Your task to perform on an android device: turn notification dots off Image 0: 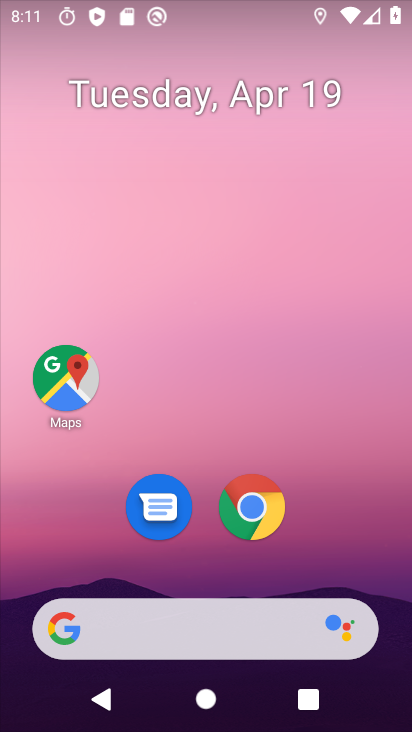
Step 0: drag from (391, 497) to (226, 133)
Your task to perform on an android device: turn notification dots off Image 1: 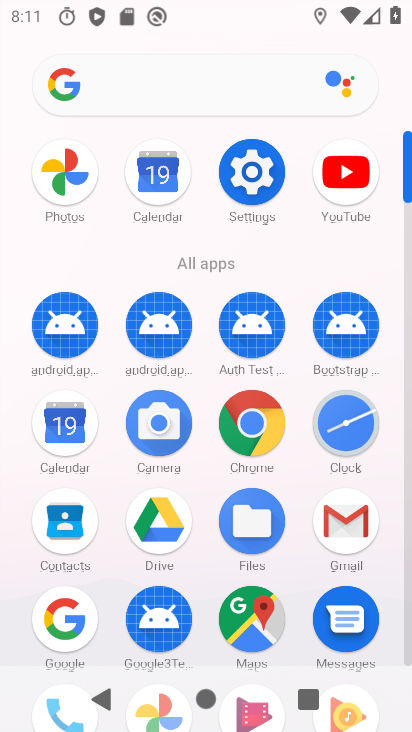
Step 1: click (256, 182)
Your task to perform on an android device: turn notification dots off Image 2: 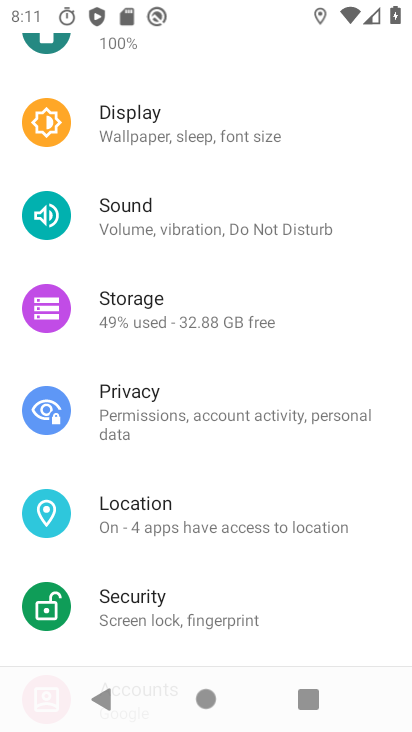
Step 2: drag from (221, 172) to (207, 507)
Your task to perform on an android device: turn notification dots off Image 3: 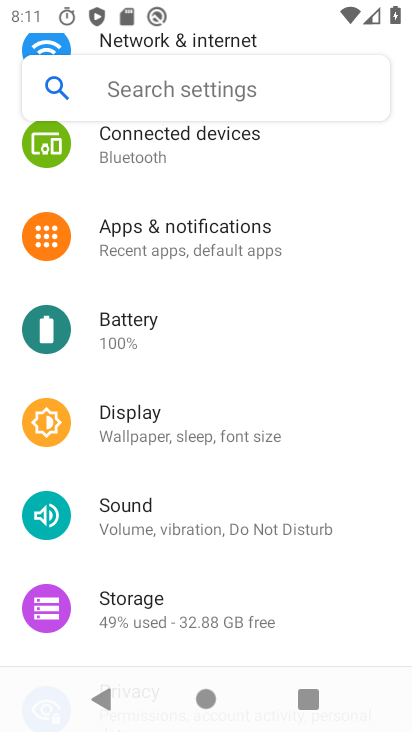
Step 3: click (202, 247)
Your task to perform on an android device: turn notification dots off Image 4: 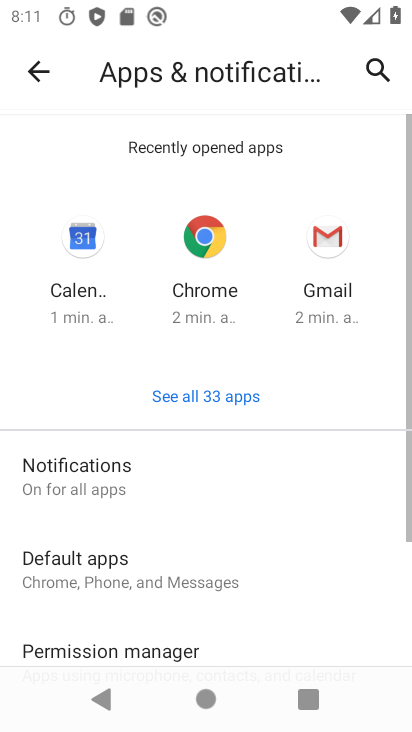
Step 4: drag from (113, 590) to (142, 224)
Your task to perform on an android device: turn notification dots off Image 5: 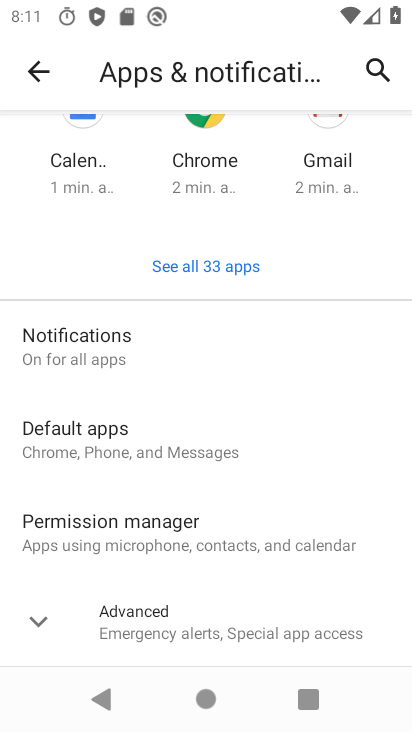
Step 5: click (86, 357)
Your task to perform on an android device: turn notification dots off Image 6: 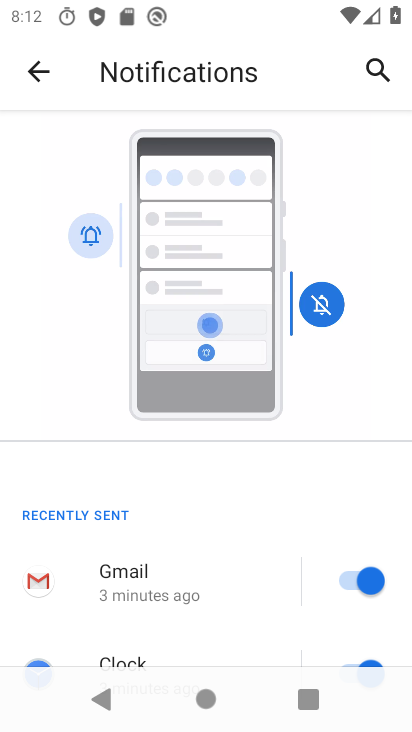
Step 6: drag from (142, 617) to (176, 241)
Your task to perform on an android device: turn notification dots off Image 7: 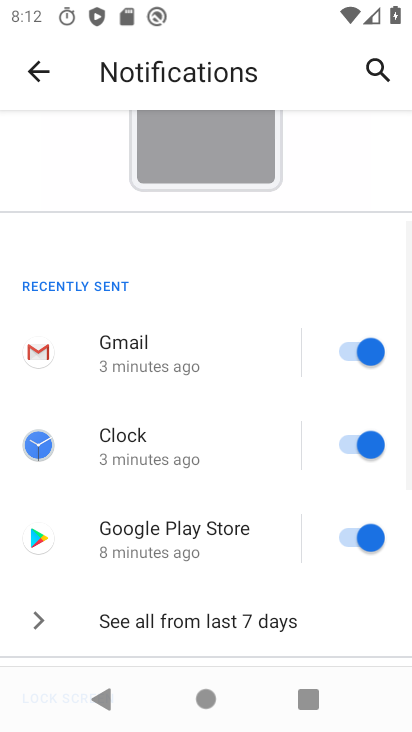
Step 7: drag from (163, 610) to (161, 170)
Your task to perform on an android device: turn notification dots off Image 8: 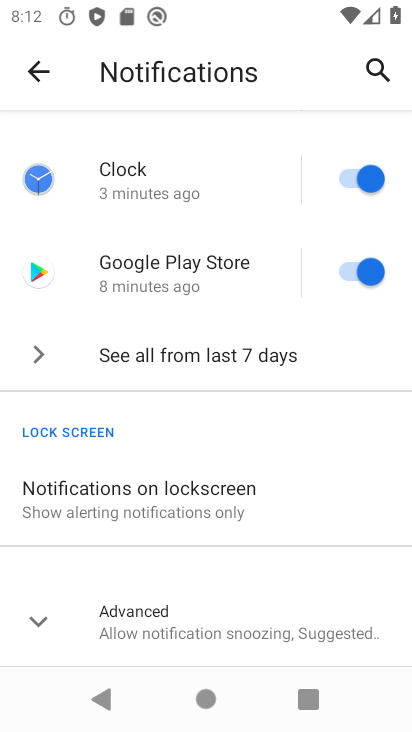
Step 8: click (184, 626)
Your task to perform on an android device: turn notification dots off Image 9: 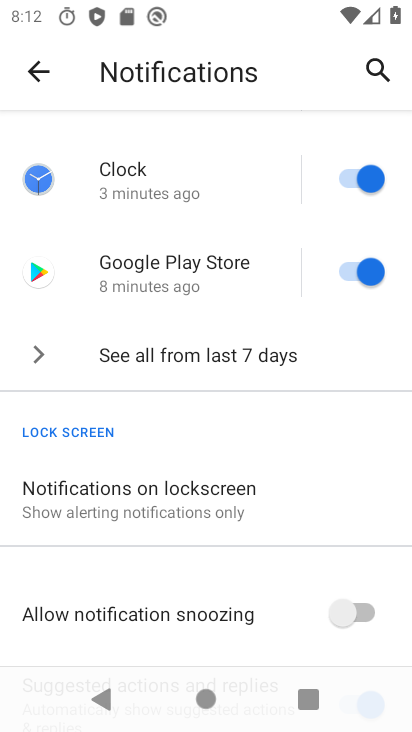
Step 9: drag from (180, 568) to (187, 286)
Your task to perform on an android device: turn notification dots off Image 10: 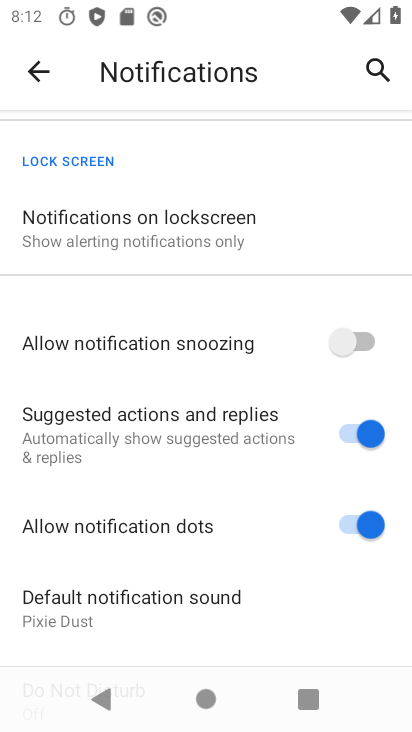
Step 10: click (365, 522)
Your task to perform on an android device: turn notification dots off Image 11: 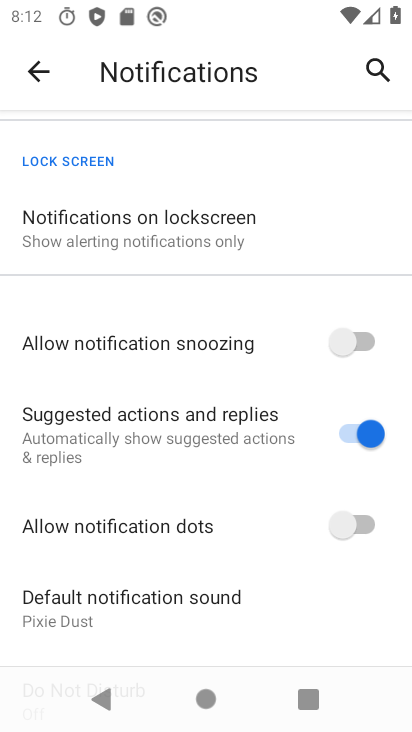
Step 11: task complete